Your task to perform on an android device: change alarm snooze length Image 0: 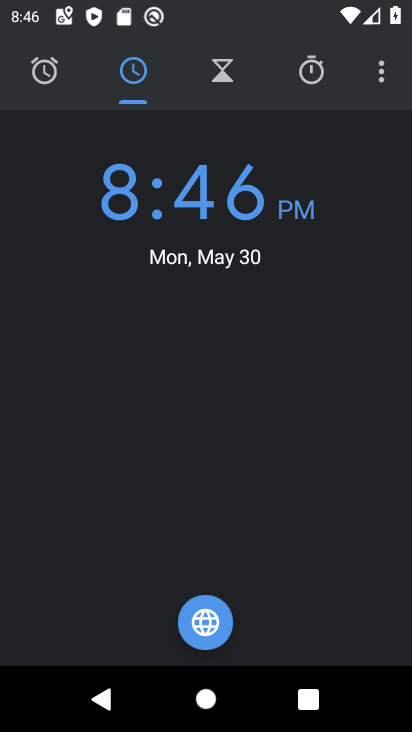
Step 0: click (390, 78)
Your task to perform on an android device: change alarm snooze length Image 1: 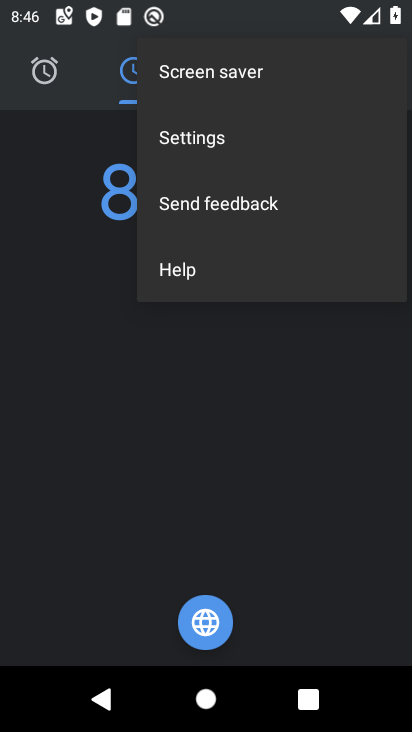
Step 1: click (262, 139)
Your task to perform on an android device: change alarm snooze length Image 2: 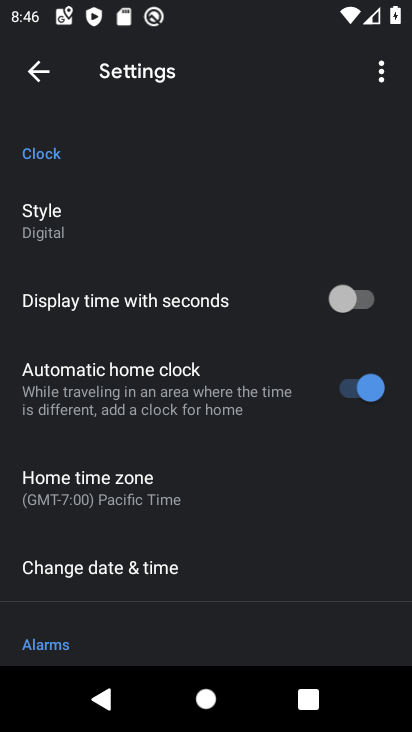
Step 2: drag from (115, 531) to (159, 298)
Your task to perform on an android device: change alarm snooze length Image 3: 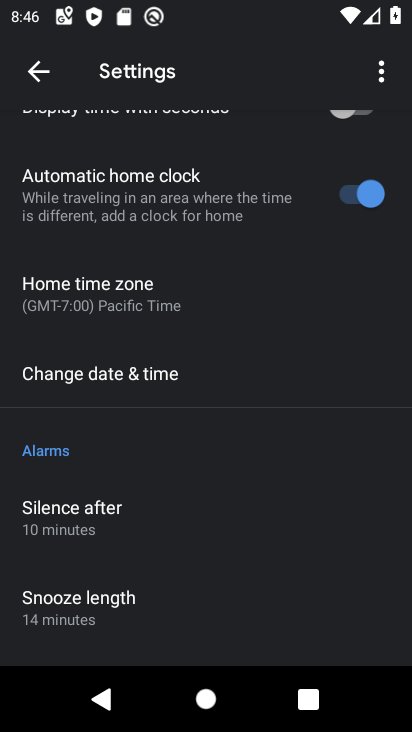
Step 3: drag from (110, 558) to (131, 471)
Your task to perform on an android device: change alarm snooze length Image 4: 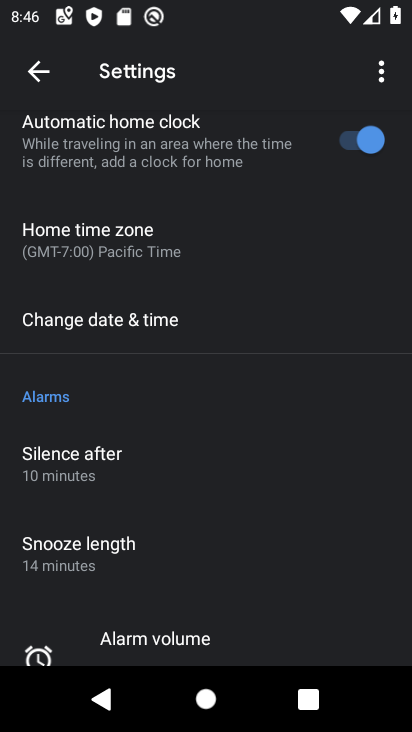
Step 4: click (91, 555)
Your task to perform on an android device: change alarm snooze length Image 5: 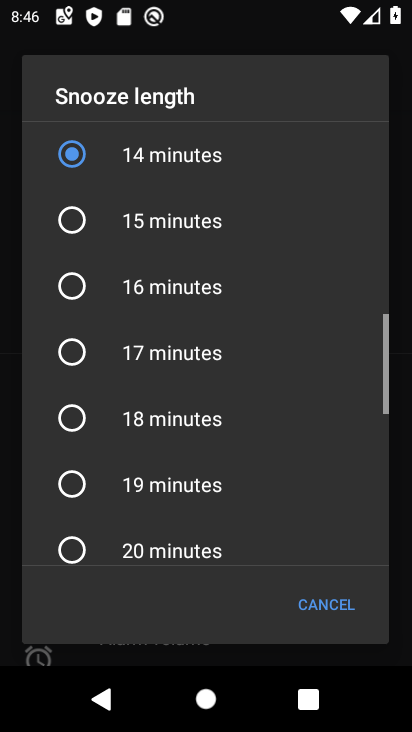
Step 5: click (105, 508)
Your task to perform on an android device: change alarm snooze length Image 6: 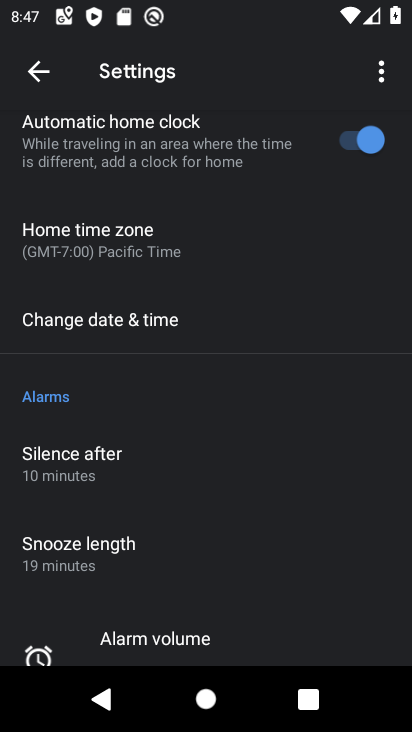
Step 6: task complete